Your task to perform on an android device: turn notification dots off Image 0: 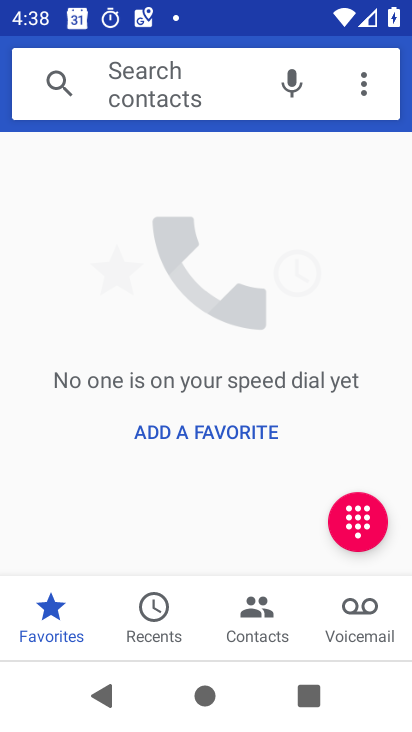
Step 0: press back button
Your task to perform on an android device: turn notification dots off Image 1: 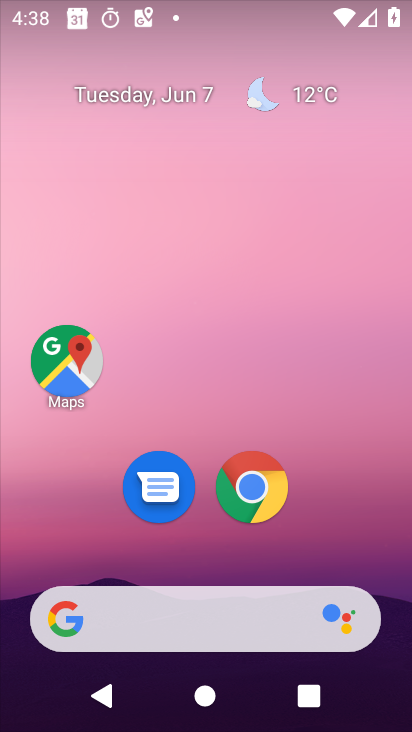
Step 1: drag from (195, 553) to (255, 132)
Your task to perform on an android device: turn notification dots off Image 2: 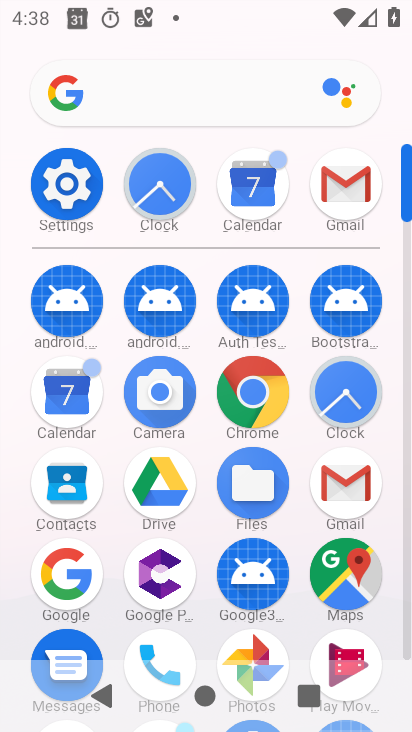
Step 2: click (62, 185)
Your task to perform on an android device: turn notification dots off Image 3: 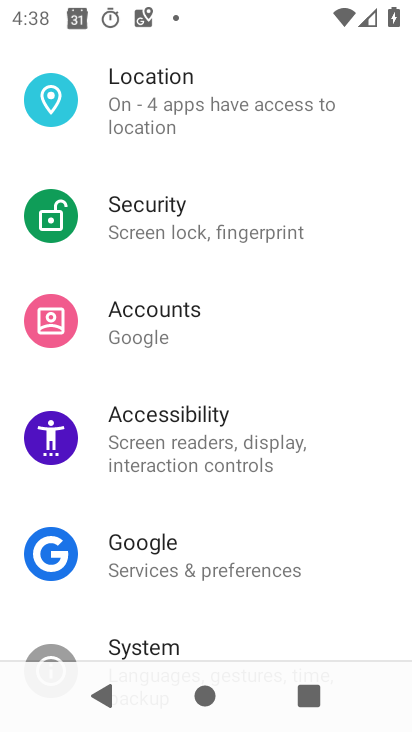
Step 3: drag from (261, 204) to (234, 687)
Your task to perform on an android device: turn notification dots off Image 4: 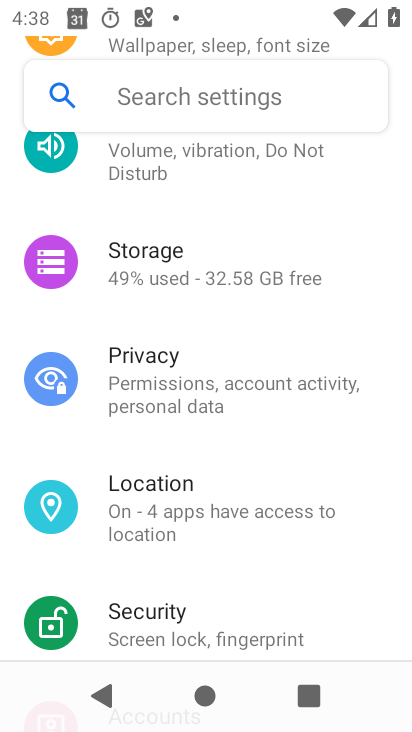
Step 4: drag from (216, 270) to (216, 622)
Your task to perform on an android device: turn notification dots off Image 5: 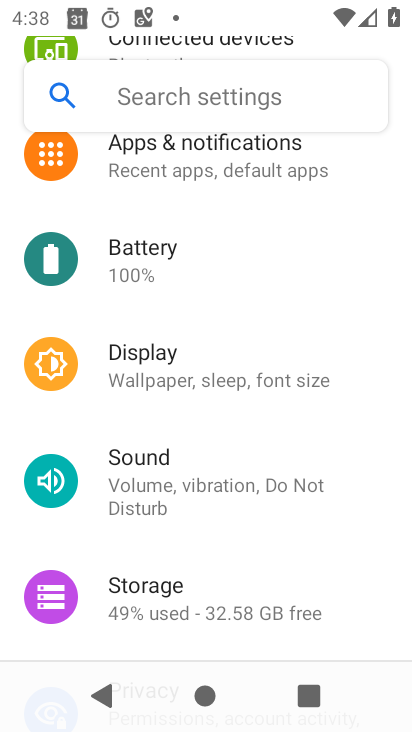
Step 5: click (210, 126)
Your task to perform on an android device: turn notification dots off Image 6: 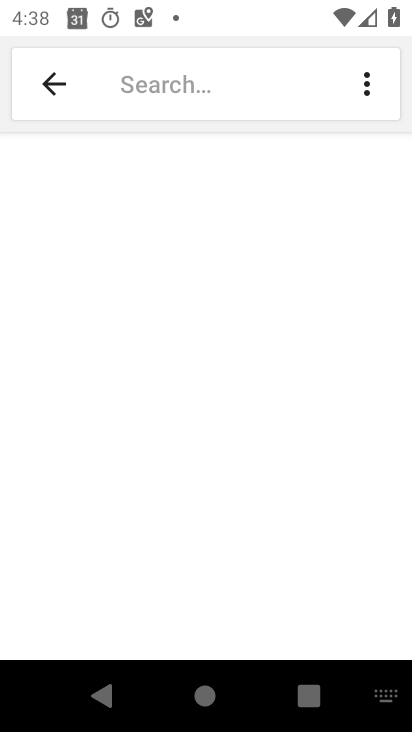
Step 6: click (42, 85)
Your task to perform on an android device: turn notification dots off Image 7: 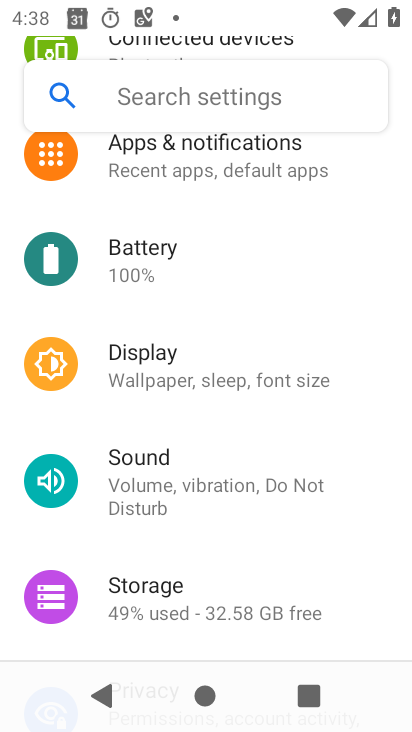
Step 7: drag from (183, 287) to (147, 658)
Your task to perform on an android device: turn notification dots off Image 8: 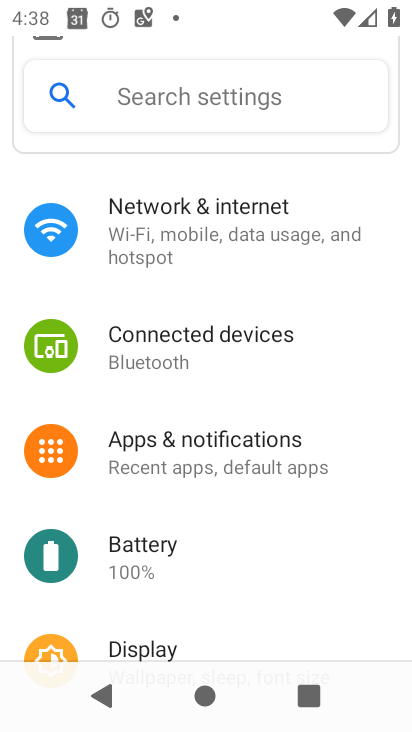
Step 8: click (214, 453)
Your task to perform on an android device: turn notification dots off Image 9: 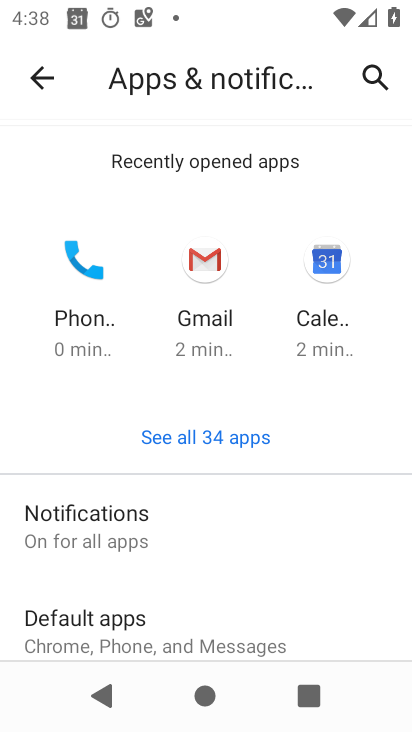
Step 9: click (181, 541)
Your task to perform on an android device: turn notification dots off Image 10: 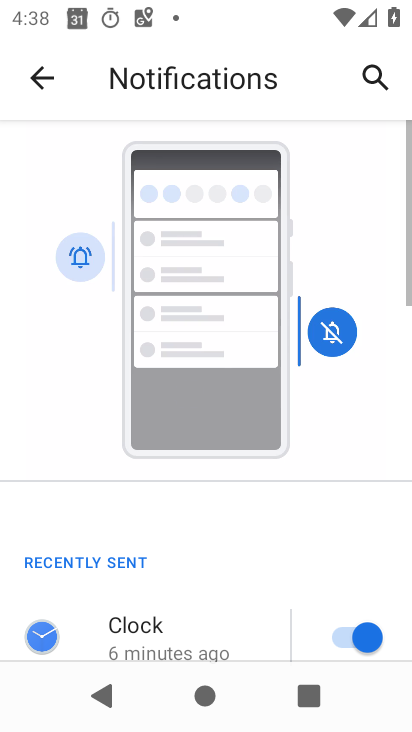
Step 10: drag from (181, 553) to (284, 66)
Your task to perform on an android device: turn notification dots off Image 11: 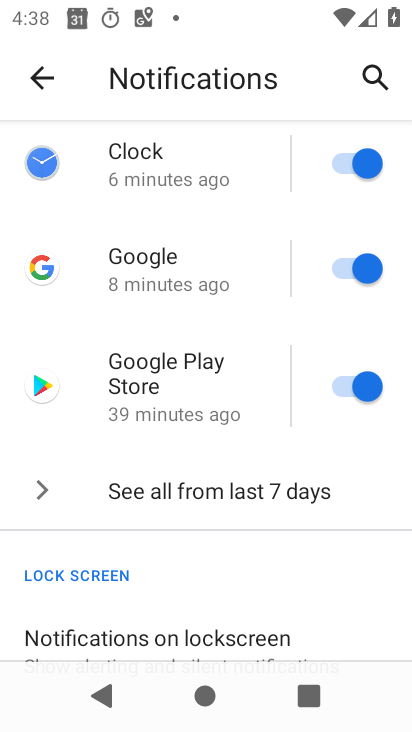
Step 11: drag from (195, 548) to (262, 246)
Your task to perform on an android device: turn notification dots off Image 12: 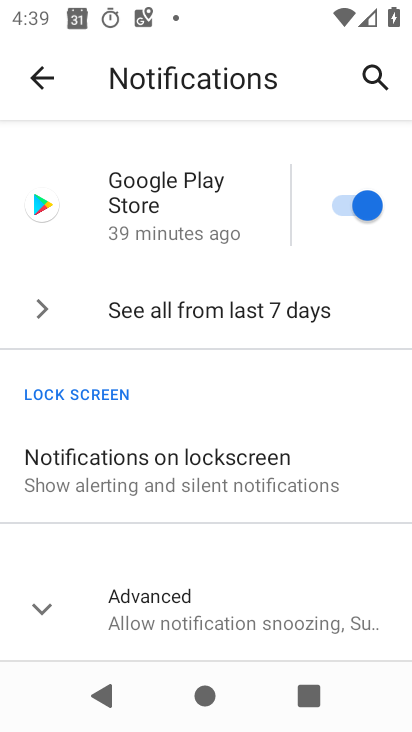
Step 12: drag from (207, 616) to (273, 246)
Your task to perform on an android device: turn notification dots off Image 13: 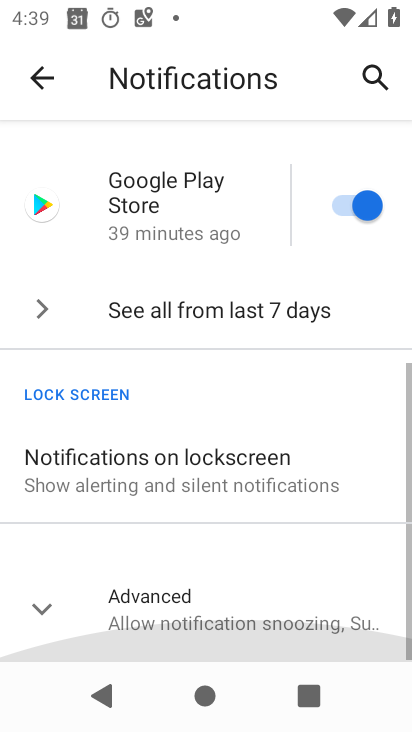
Step 13: click (174, 636)
Your task to perform on an android device: turn notification dots off Image 14: 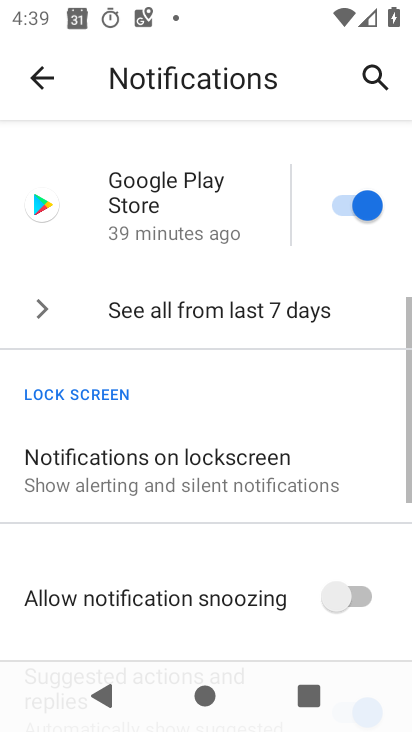
Step 14: drag from (185, 600) to (255, 224)
Your task to perform on an android device: turn notification dots off Image 15: 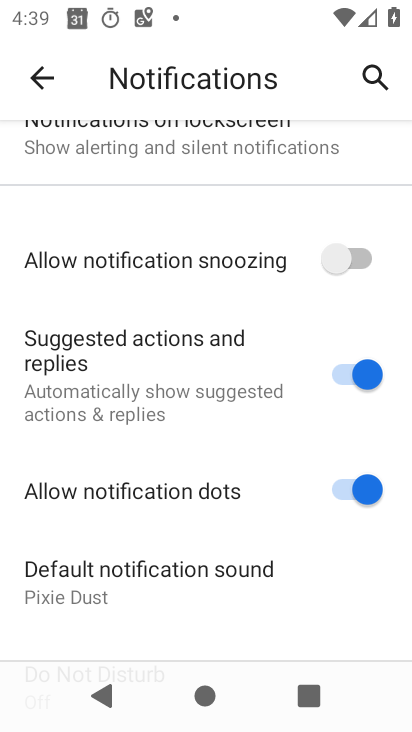
Step 15: click (373, 494)
Your task to perform on an android device: turn notification dots off Image 16: 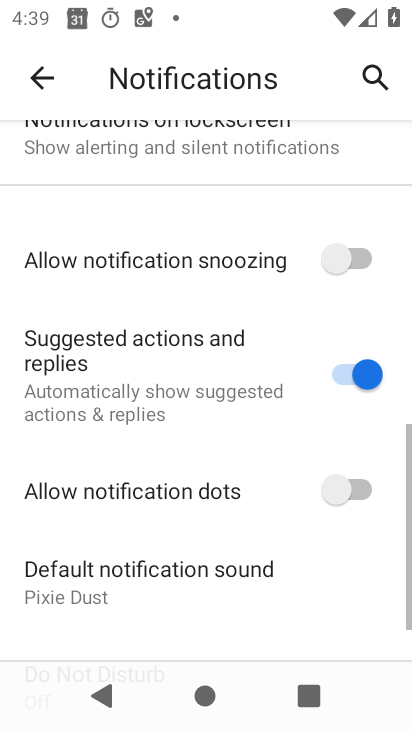
Step 16: task complete